Your task to perform on an android device: turn on the 12-hour format for clock Image 0: 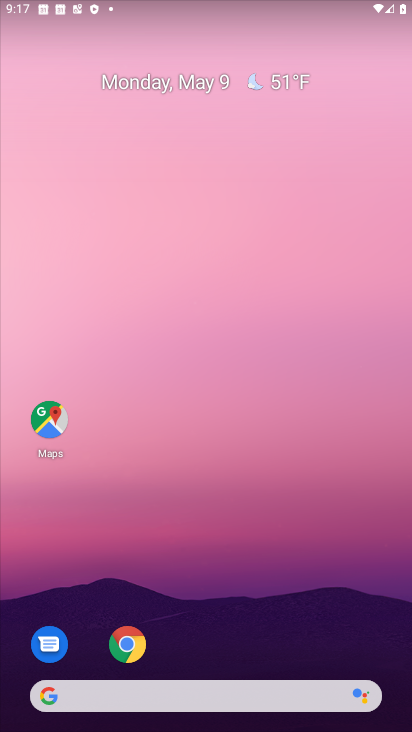
Step 0: drag from (223, 686) to (202, 47)
Your task to perform on an android device: turn on the 12-hour format for clock Image 1: 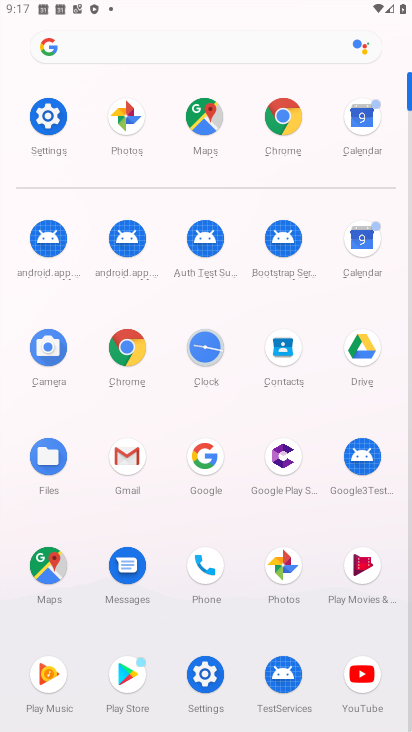
Step 1: click (212, 355)
Your task to perform on an android device: turn on the 12-hour format for clock Image 2: 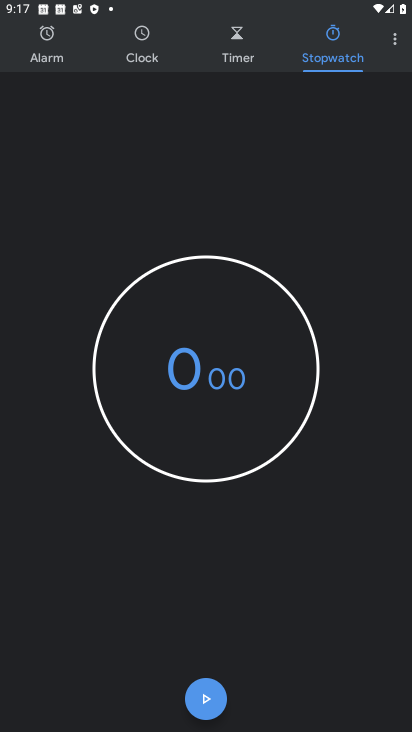
Step 2: click (395, 60)
Your task to perform on an android device: turn on the 12-hour format for clock Image 3: 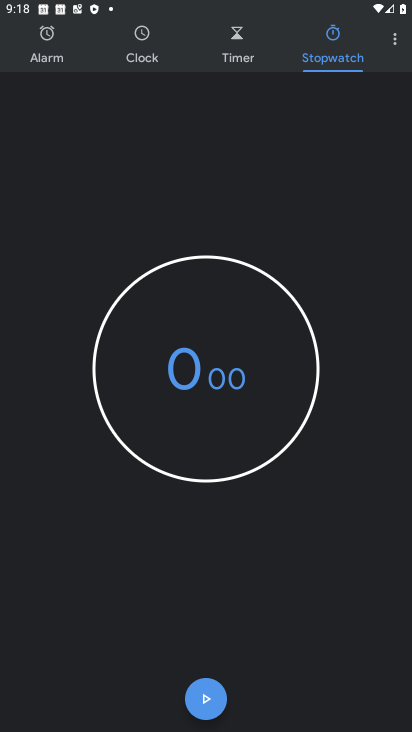
Step 3: click (386, 40)
Your task to perform on an android device: turn on the 12-hour format for clock Image 4: 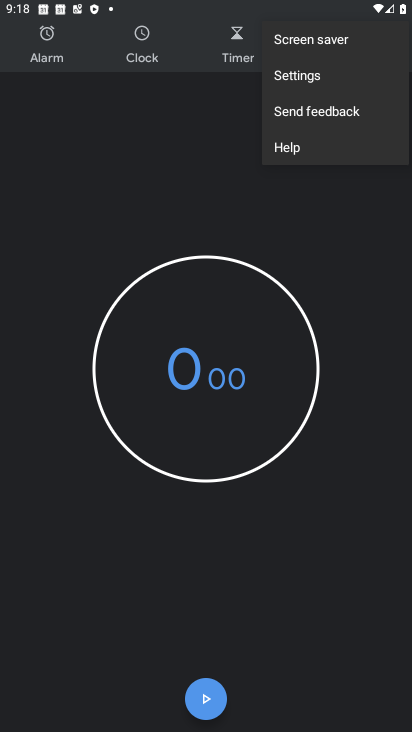
Step 4: click (293, 72)
Your task to perform on an android device: turn on the 12-hour format for clock Image 5: 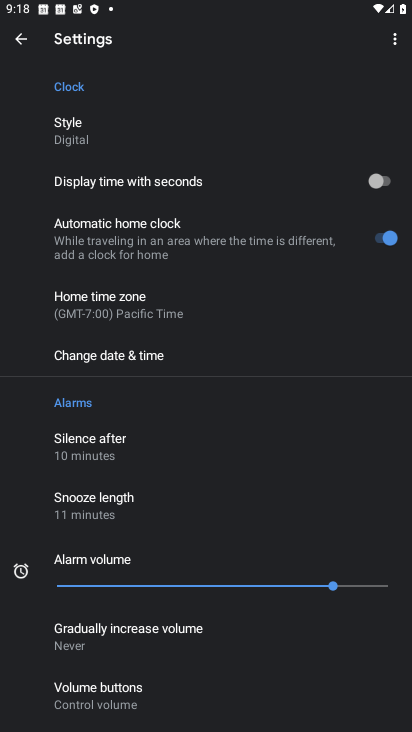
Step 5: click (92, 355)
Your task to perform on an android device: turn on the 12-hour format for clock Image 6: 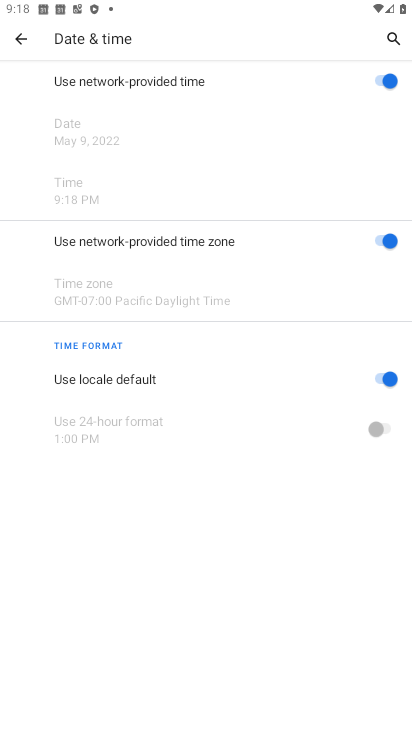
Step 6: task complete